Your task to perform on an android device: What's on my calendar today? Image 0: 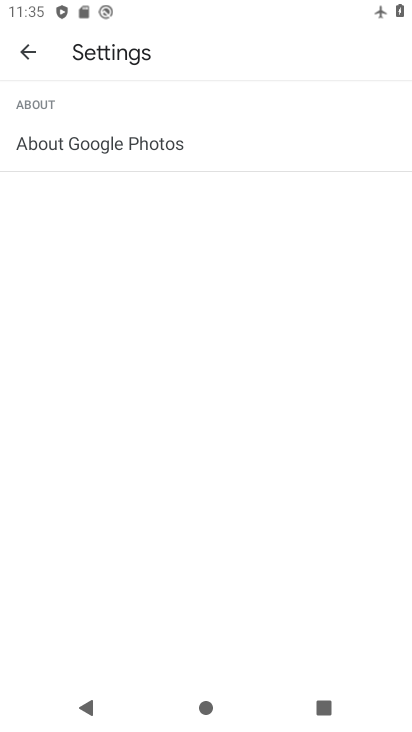
Step 0: press home button
Your task to perform on an android device: What's on my calendar today? Image 1: 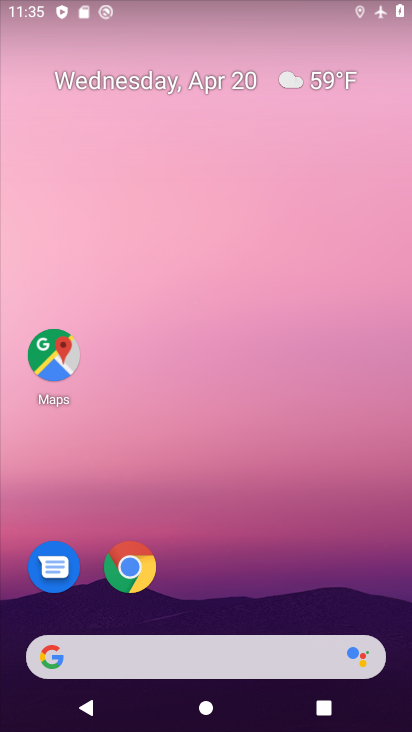
Step 1: drag from (228, 594) to (196, 103)
Your task to perform on an android device: What's on my calendar today? Image 2: 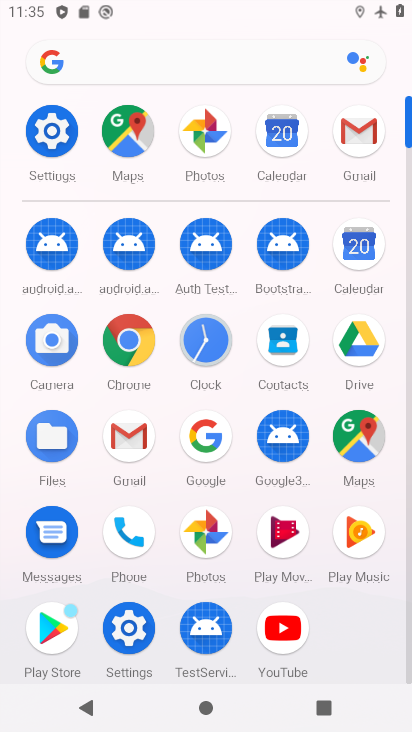
Step 2: click (364, 246)
Your task to perform on an android device: What's on my calendar today? Image 3: 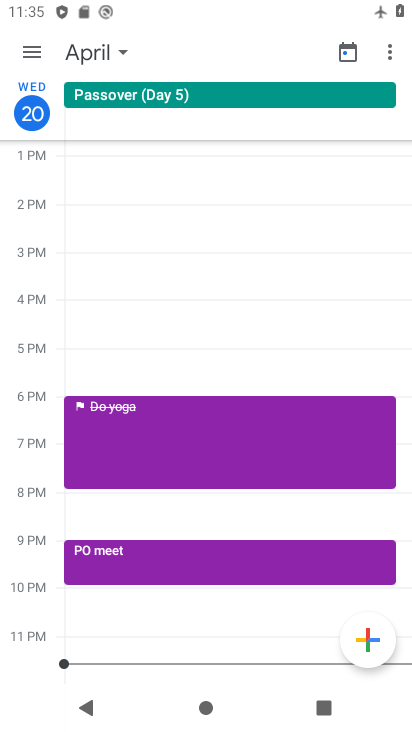
Step 3: click (69, 54)
Your task to perform on an android device: What's on my calendar today? Image 4: 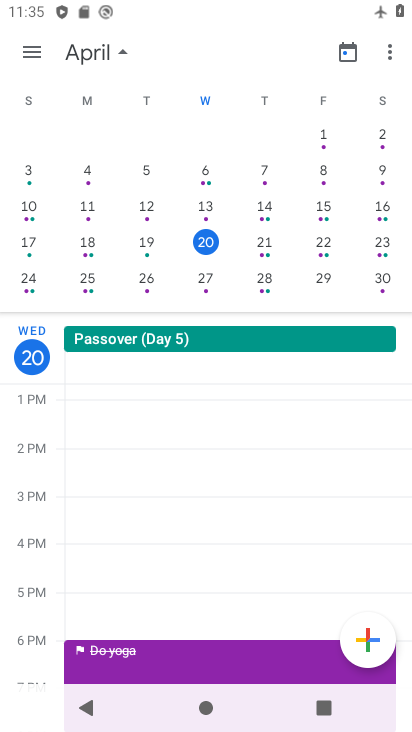
Step 4: click (212, 236)
Your task to perform on an android device: What's on my calendar today? Image 5: 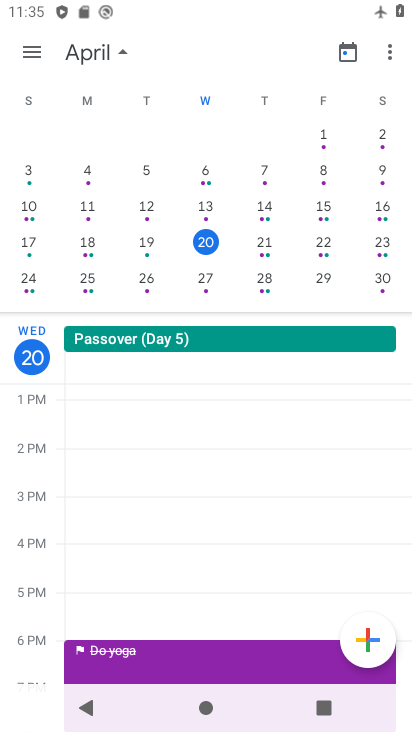
Step 5: click (212, 240)
Your task to perform on an android device: What's on my calendar today? Image 6: 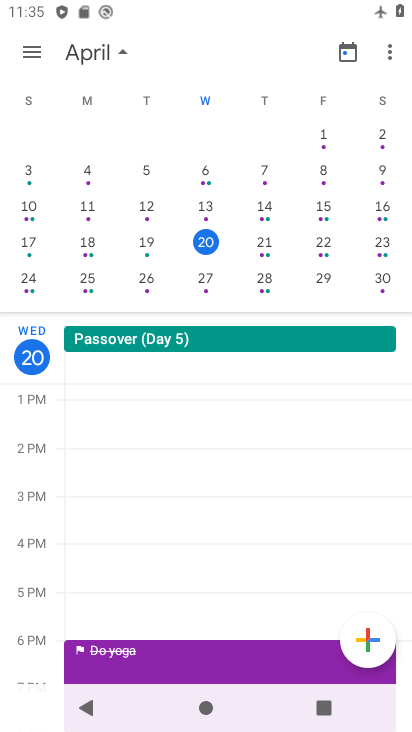
Step 6: click (208, 233)
Your task to perform on an android device: What's on my calendar today? Image 7: 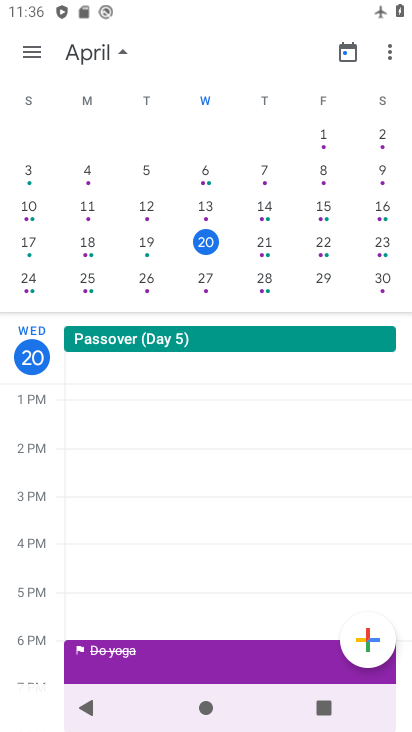
Step 7: task complete